Your task to perform on an android device: Open Youtube and go to "Your channel" Image 0: 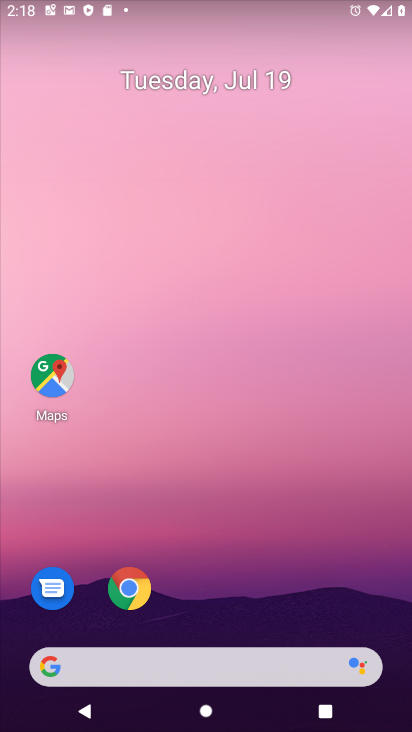
Step 0: drag from (327, 604) to (224, 129)
Your task to perform on an android device: Open Youtube and go to "Your channel" Image 1: 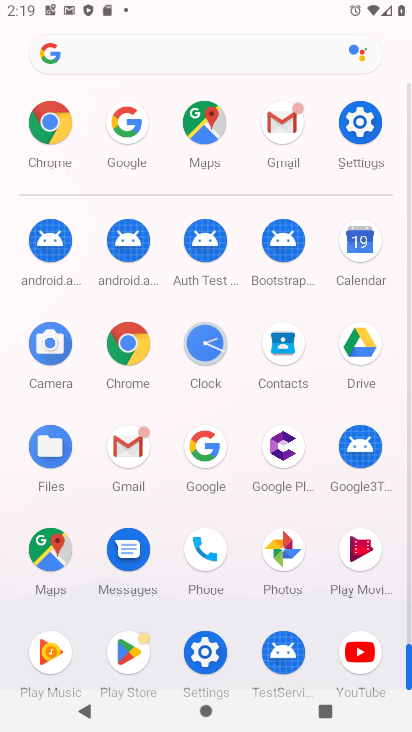
Step 1: click (367, 617)
Your task to perform on an android device: Open Youtube and go to "Your channel" Image 2: 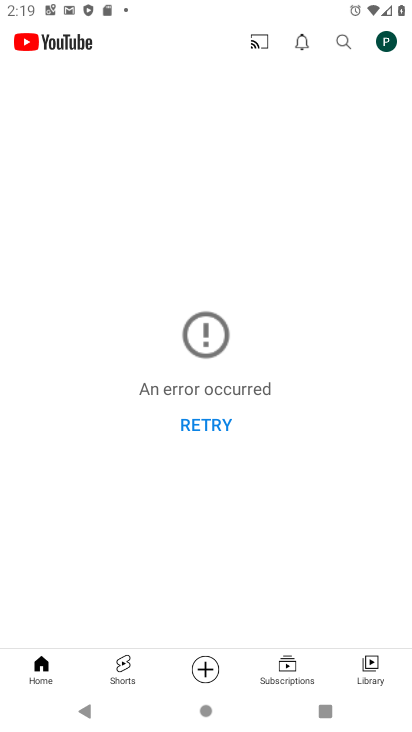
Step 2: click (393, 42)
Your task to perform on an android device: Open Youtube and go to "Your channel" Image 3: 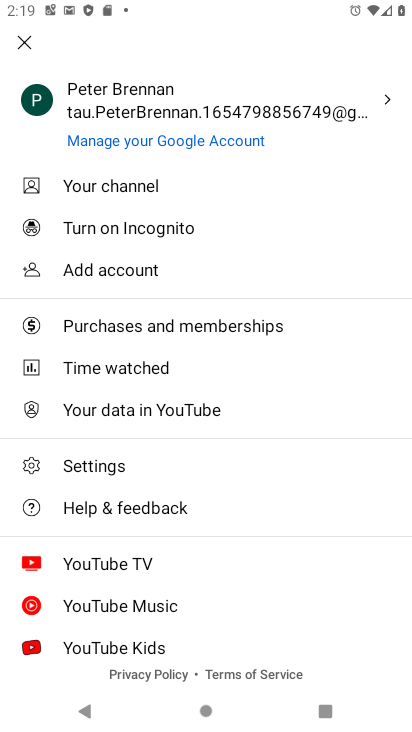
Step 3: click (102, 180)
Your task to perform on an android device: Open Youtube and go to "Your channel" Image 4: 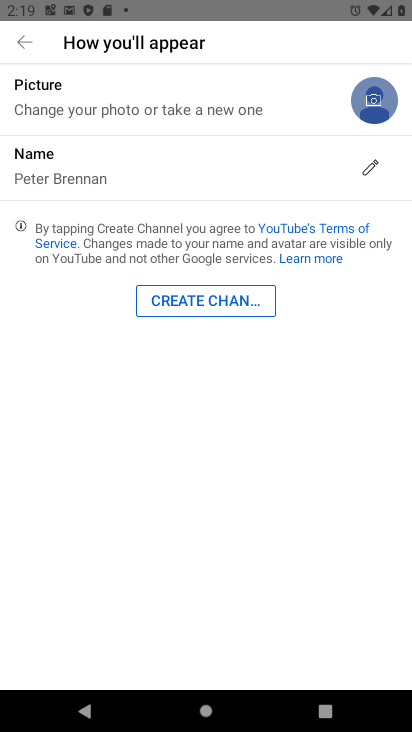
Step 4: task complete